Your task to perform on an android device: change the clock display to digital Image 0: 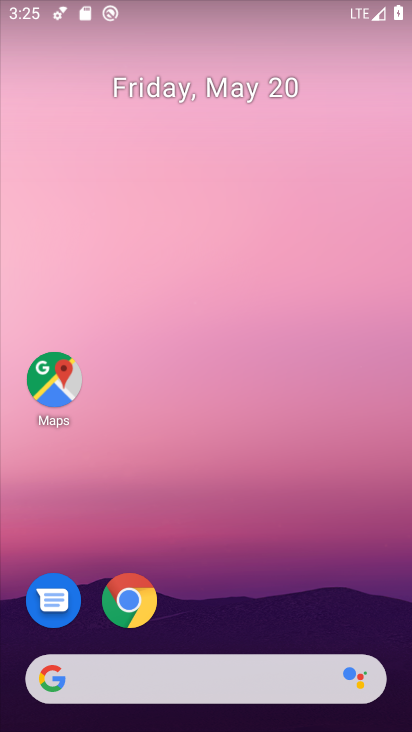
Step 0: drag from (342, 577) to (337, 214)
Your task to perform on an android device: change the clock display to digital Image 1: 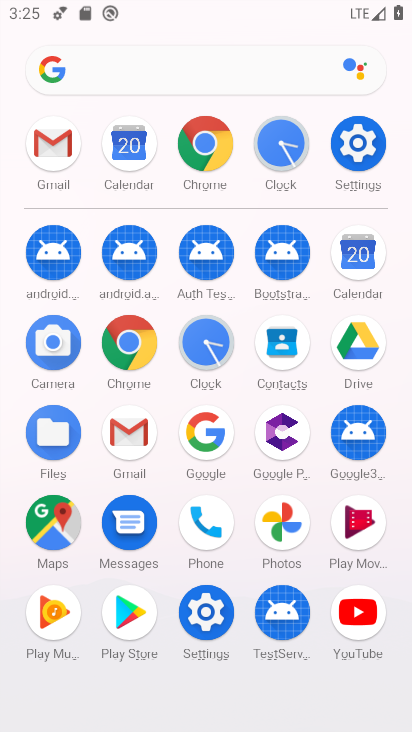
Step 1: click (221, 354)
Your task to perform on an android device: change the clock display to digital Image 2: 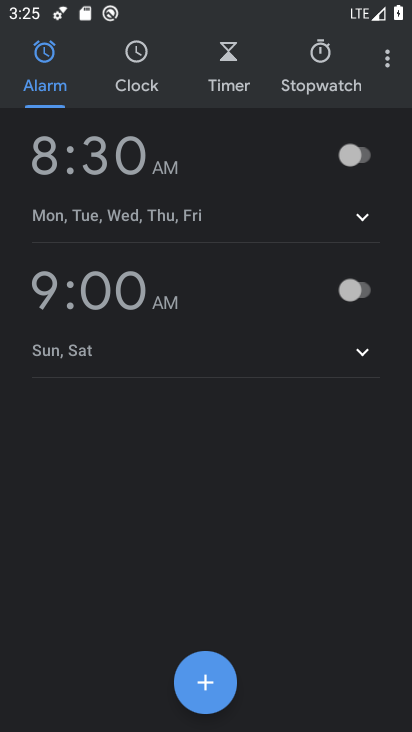
Step 2: click (387, 65)
Your task to perform on an android device: change the clock display to digital Image 3: 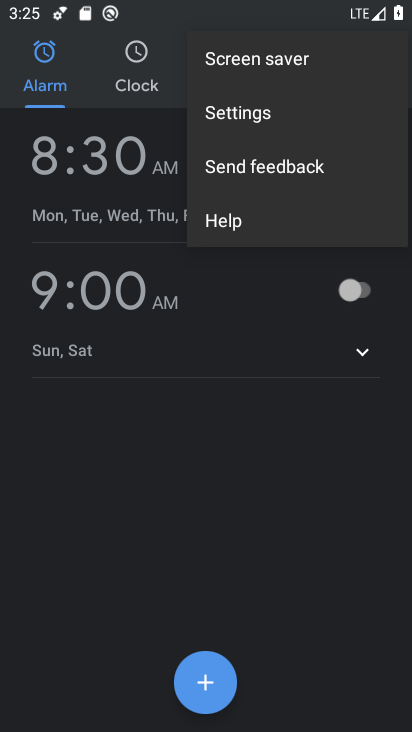
Step 3: click (282, 122)
Your task to perform on an android device: change the clock display to digital Image 4: 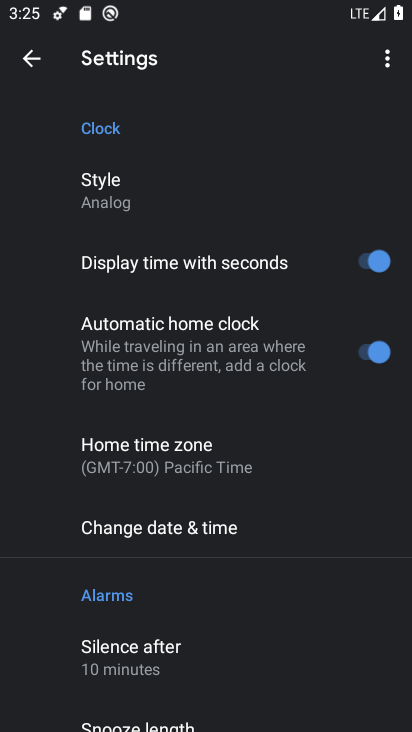
Step 4: drag from (287, 590) to (291, 519)
Your task to perform on an android device: change the clock display to digital Image 5: 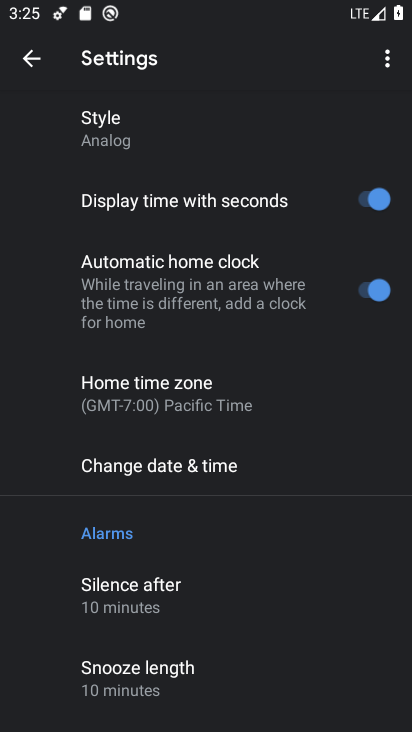
Step 5: drag from (293, 633) to (294, 525)
Your task to perform on an android device: change the clock display to digital Image 6: 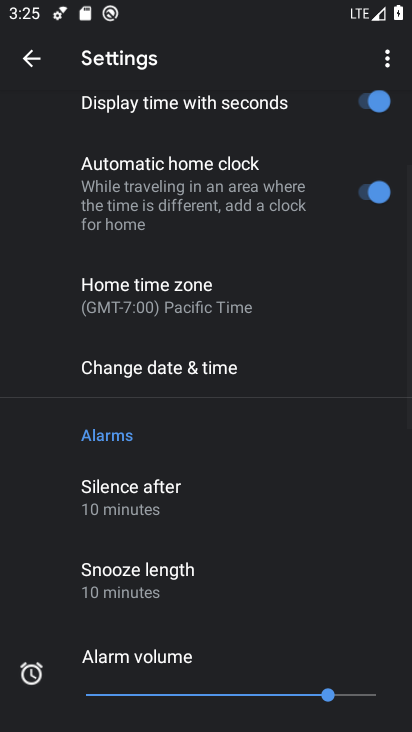
Step 6: drag from (293, 635) to (295, 516)
Your task to perform on an android device: change the clock display to digital Image 7: 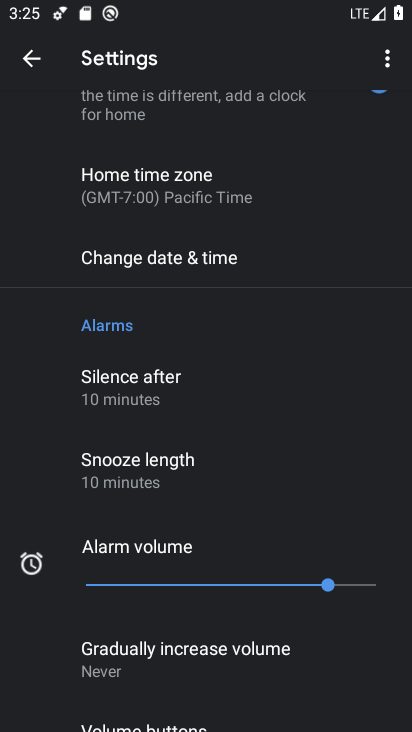
Step 7: drag from (313, 646) to (330, 539)
Your task to perform on an android device: change the clock display to digital Image 8: 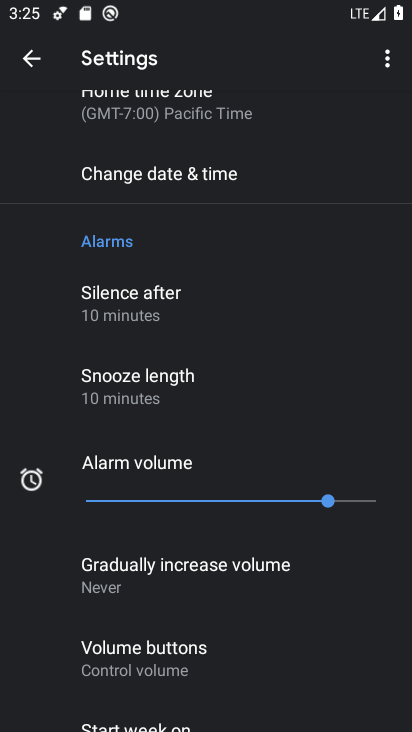
Step 8: drag from (337, 621) to (338, 501)
Your task to perform on an android device: change the clock display to digital Image 9: 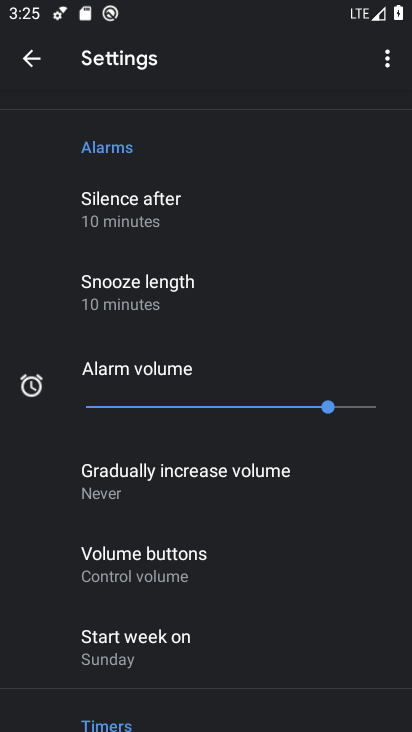
Step 9: drag from (329, 629) to (344, 500)
Your task to perform on an android device: change the clock display to digital Image 10: 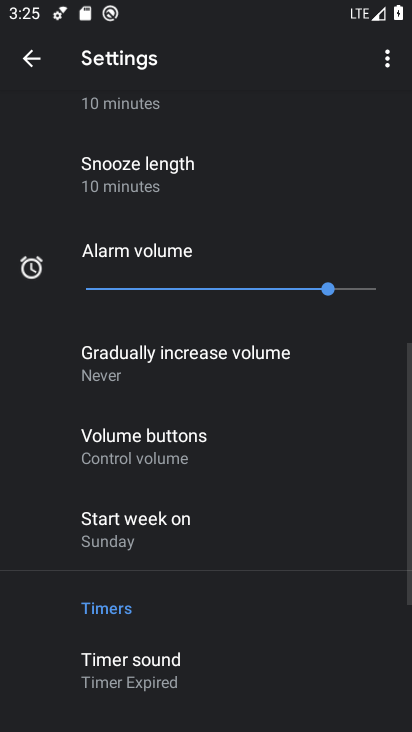
Step 10: drag from (358, 422) to (358, 557)
Your task to perform on an android device: change the clock display to digital Image 11: 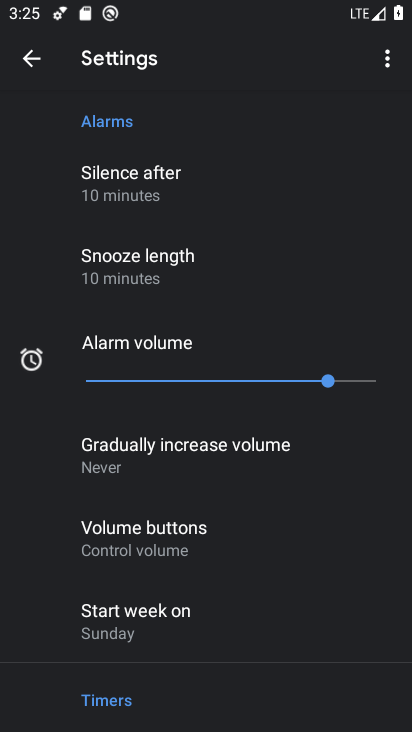
Step 11: drag from (390, 388) to (391, 511)
Your task to perform on an android device: change the clock display to digital Image 12: 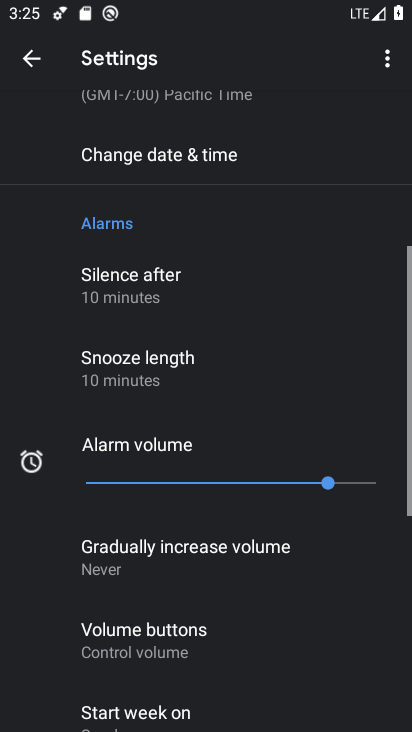
Step 12: drag from (376, 410) to (376, 506)
Your task to perform on an android device: change the clock display to digital Image 13: 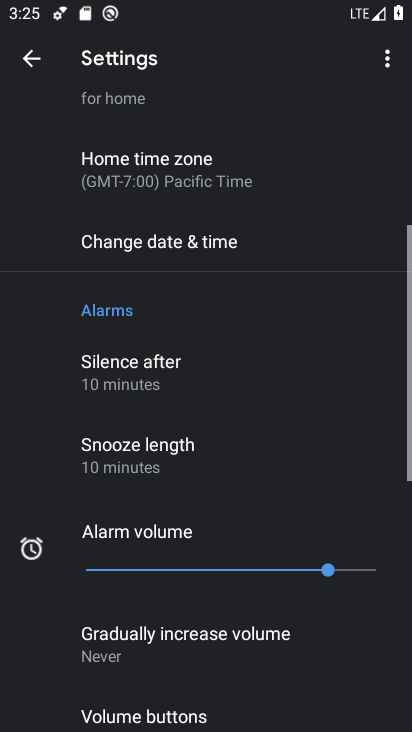
Step 13: drag from (358, 434) to (354, 525)
Your task to perform on an android device: change the clock display to digital Image 14: 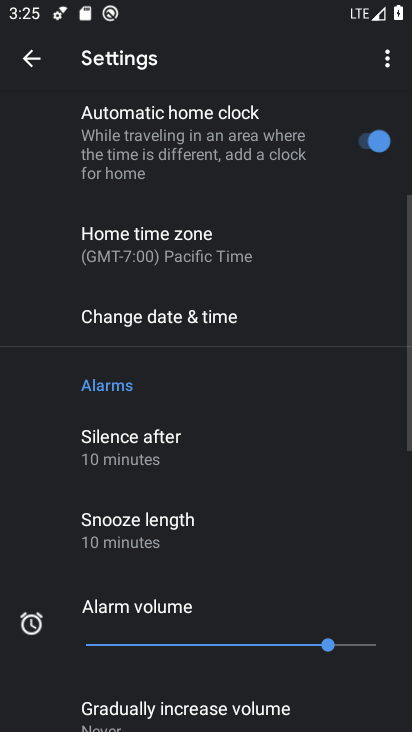
Step 14: drag from (354, 418) to (357, 490)
Your task to perform on an android device: change the clock display to digital Image 15: 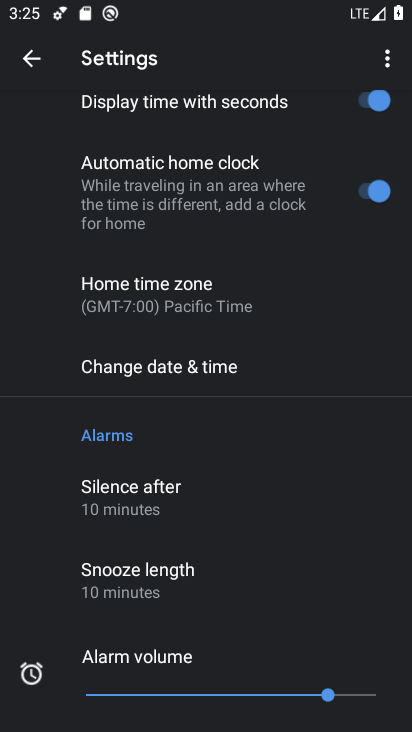
Step 15: drag from (368, 403) to (368, 488)
Your task to perform on an android device: change the clock display to digital Image 16: 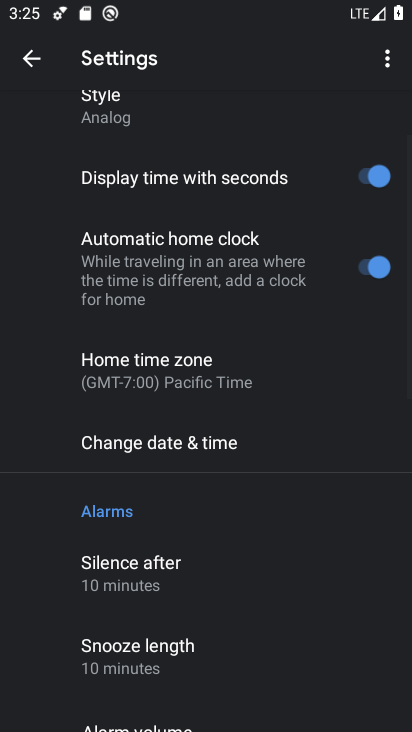
Step 16: drag from (358, 356) to (357, 455)
Your task to perform on an android device: change the clock display to digital Image 17: 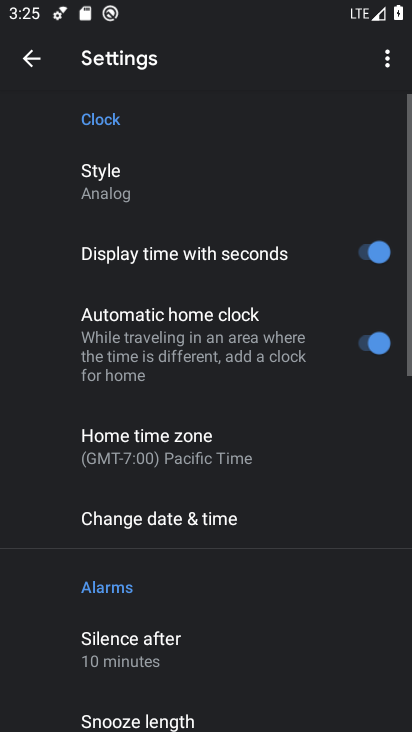
Step 17: drag from (351, 361) to (344, 473)
Your task to perform on an android device: change the clock display to digital Image 18: 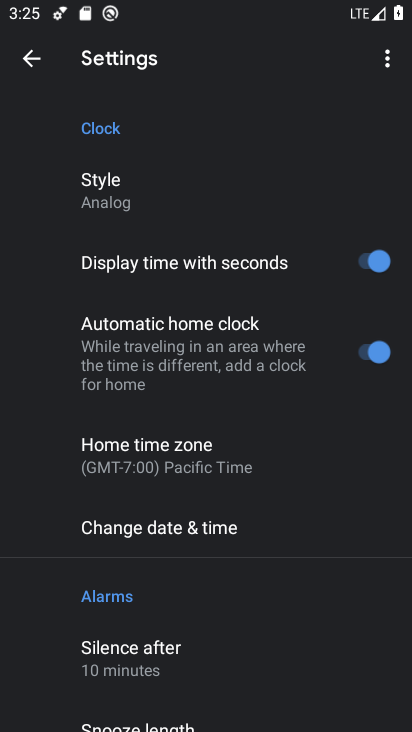
Step 18: click (122, 199)
Your task to perform on an android device: change the clock display to digital Image 19: 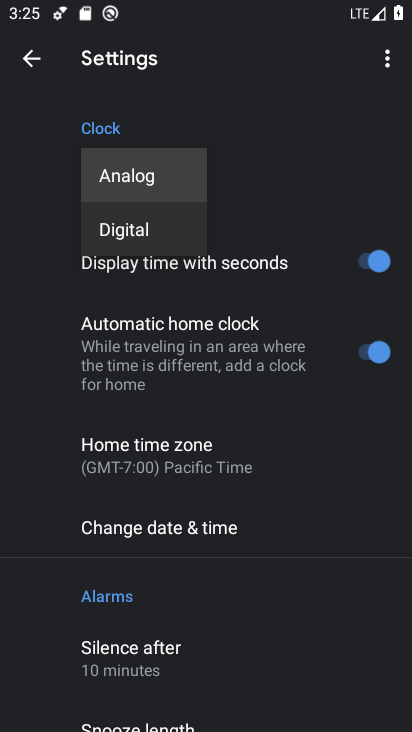
Step 19: click (128, 232)
Your task to perform on an android device: change the clock display to digital Image 20: 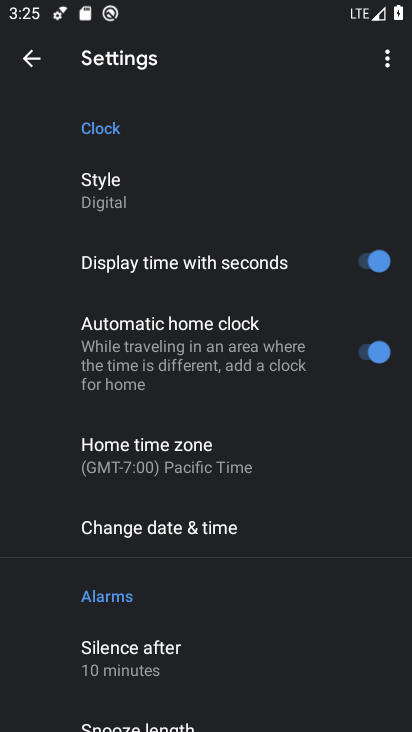
Step 20: task complete